Your task to perform on an android device: check data usage Image 0: 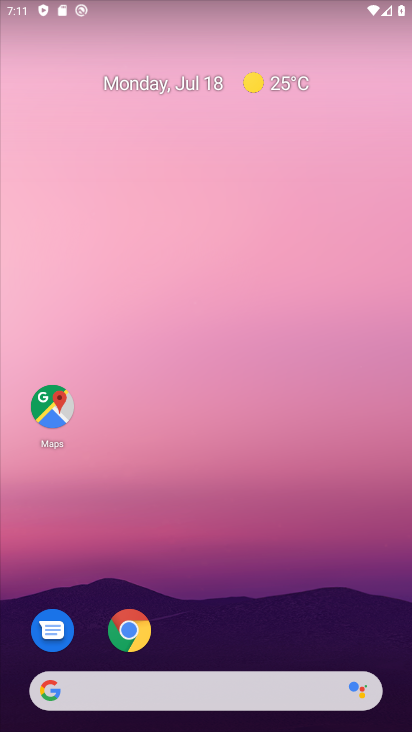
Step 0: drag from (228, 702) to (213, 201)
Your task to perform on an android device: check data usage Image 1: 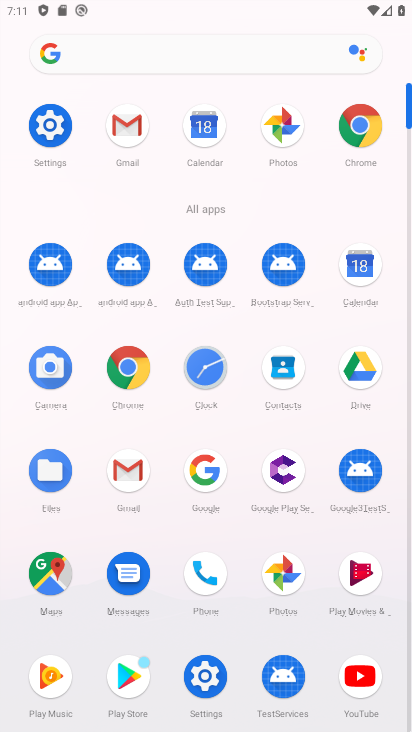
Step 1: click (214, 682)
Your task to perform on an android device: check data usage Image 2: 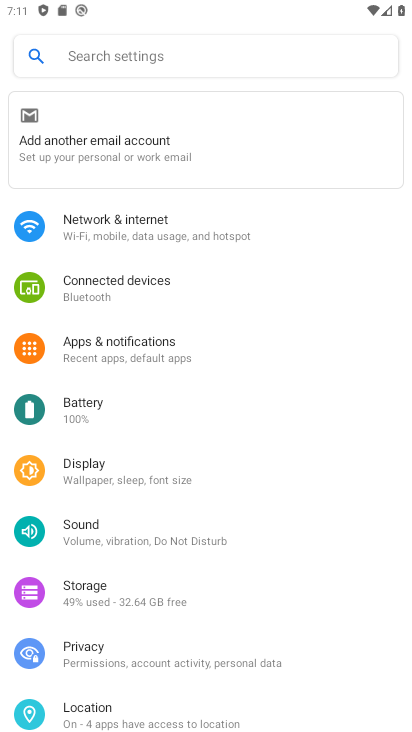
Step 2: click (120, 63)
Your task to perform on an android device: check data usage Image 3: 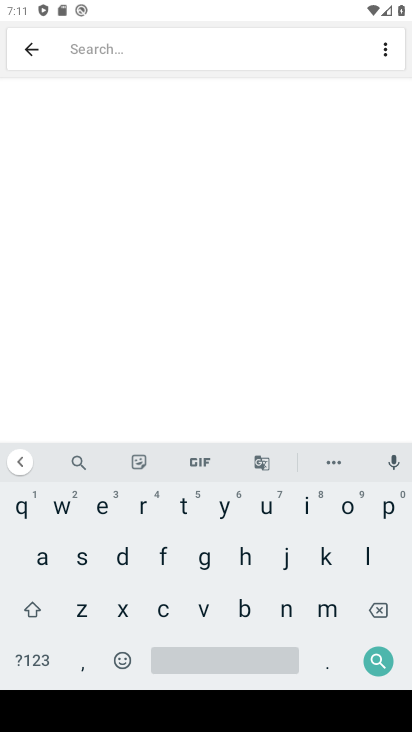
Step 3: click (122, 563)
Your task to perform on an android device: check data usage Image 4: 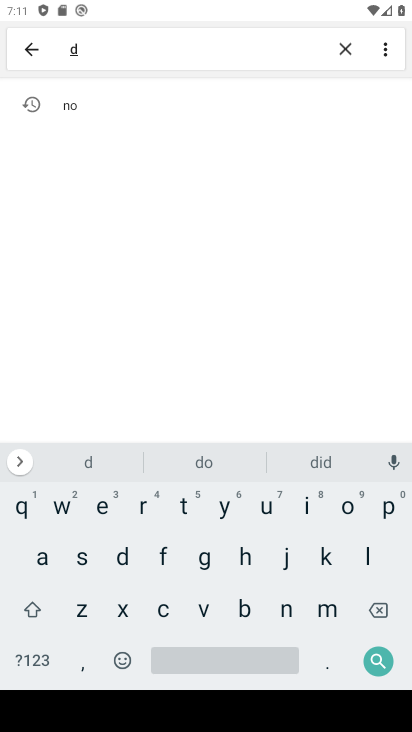
Step 4: click (41, 560)
Your task to perform on an android device: check data usage Image 5: 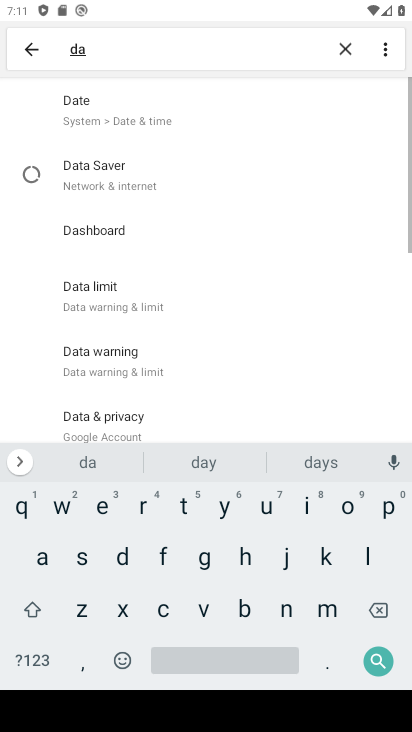
Step 5: click (188, 507)
Your task to perform on an android device: check data usage Image 6: 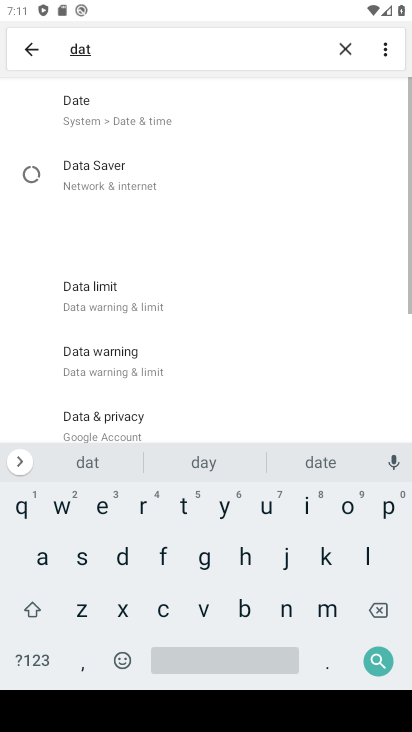
Step 6: click (40, 562)
Your task to perform on an android device: check data usage Image 7: 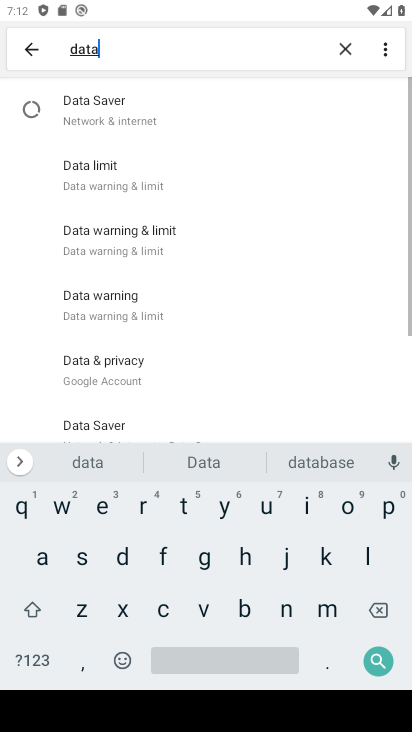
Step 7: click (209, 662)
Your task to perform on an android device: check data usage Image 8: 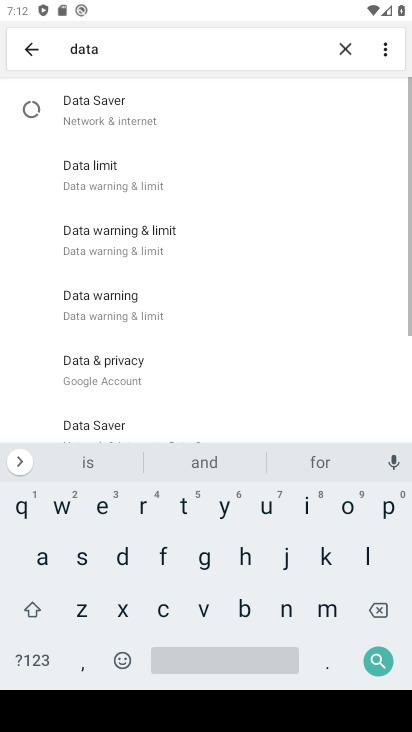
Step 8: click (265, 507)
Your task to perform on an android device: check data usage Image 9: 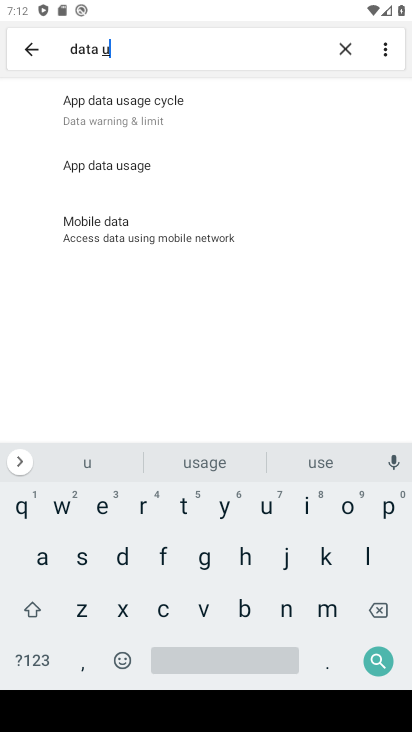
Step 9: click (113, 154)
Your task to perform on an android device: check data usage Image 10: 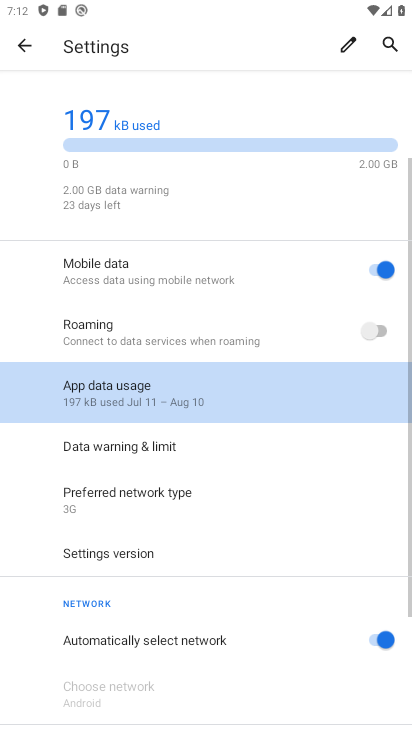
Step 10: click (156, 371)
Your task to perform on an android device: check data usage Image 11: 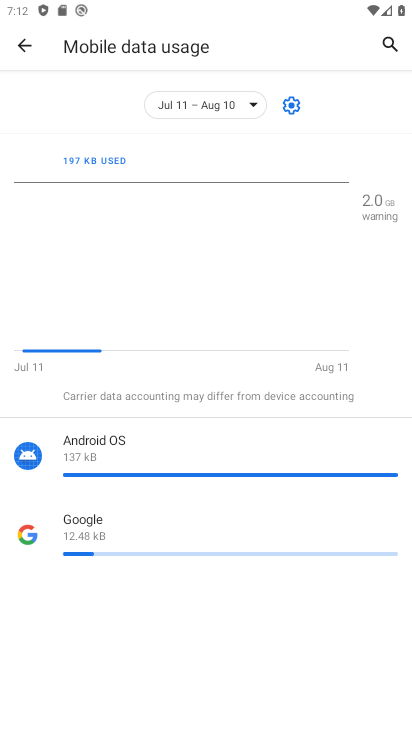
Step 11: task complete